Your task to perform on an android device: Go to notification settings Image 0: 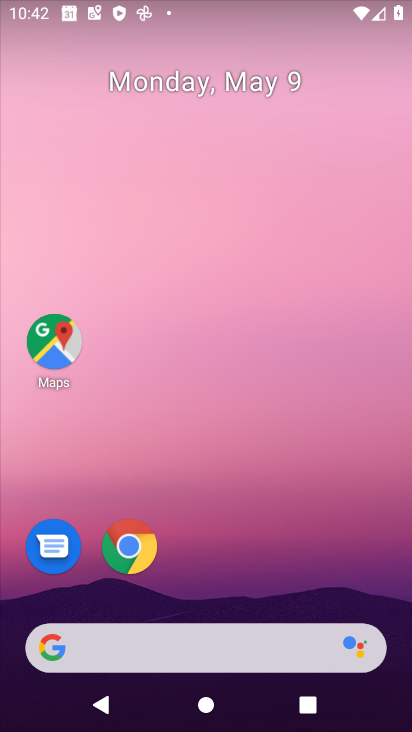
Step 0: drag from (264, 637) to (309, 220)
Your task to perform on an android device: Go to notification settings Image 1: 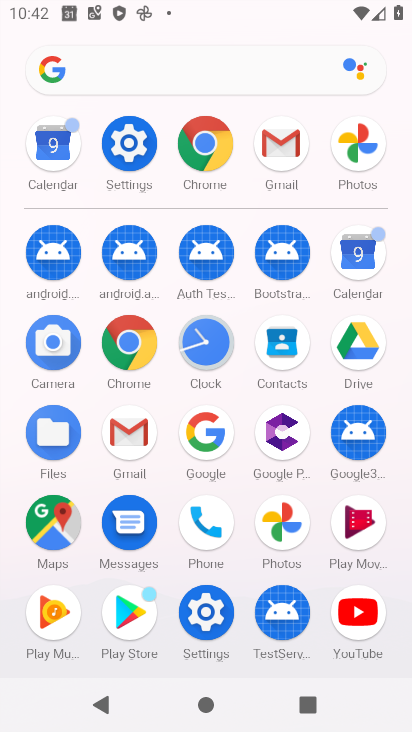
Step 1: click (140, 148)
Your task to perform on an android device: Go to notification settings Image 2: 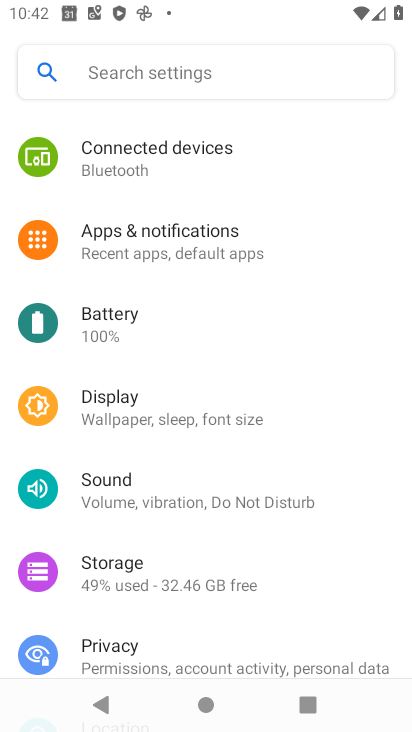
Step 2: click (210, 236)
Your task to perform on an android device: Go to notification settings Image 3: 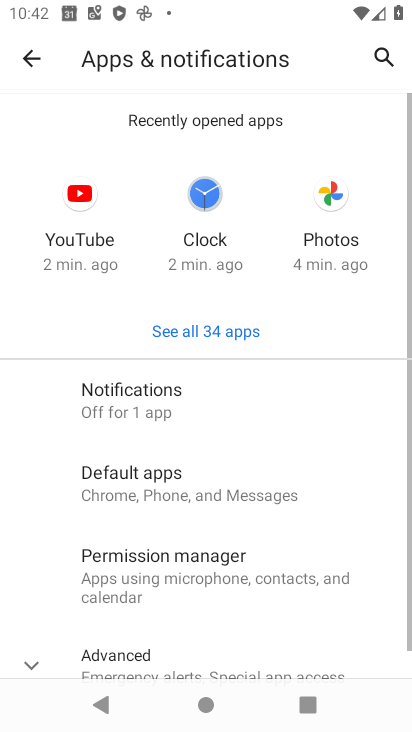
Step 3: task complete